Your task to perform on an android device: remove spam from my inbox in the gmail app Image 0: 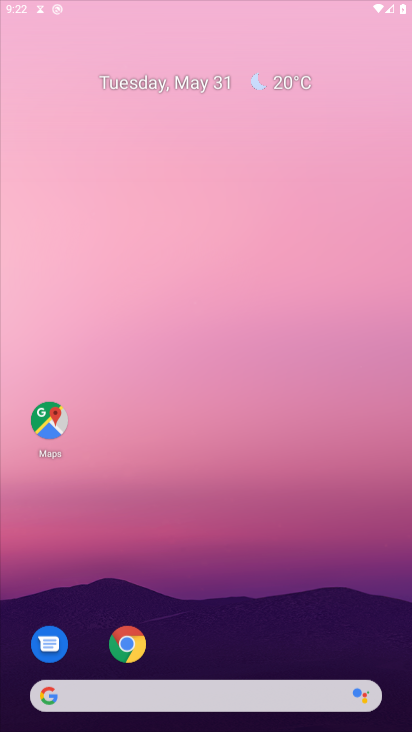
Step 0: press home button
Your task to perform on an android device: remove spam from my inbox in the gmail app Image 1: 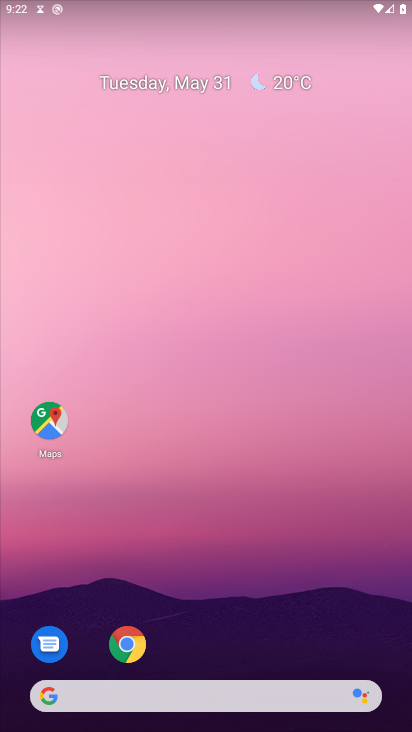
Step 1: drag from (213, 658) to (0, 2)
Your task to perform on an android device: remove spam from my inbox in the gmail app Image 2: 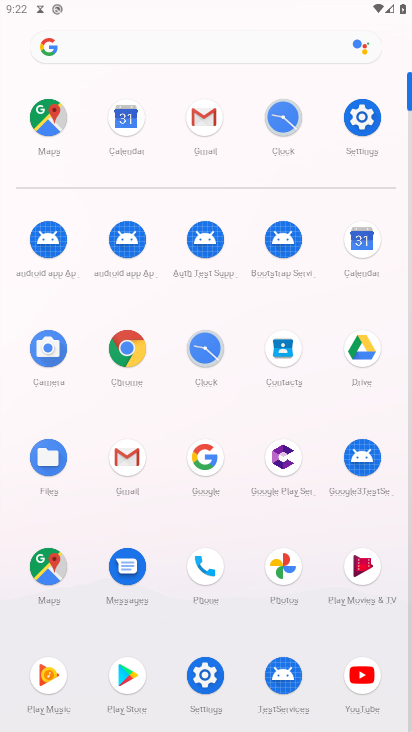
Step 2: click (127, 450)
Your task to perform on an android device: remove spam from my inbox in the gmail app Image 3: 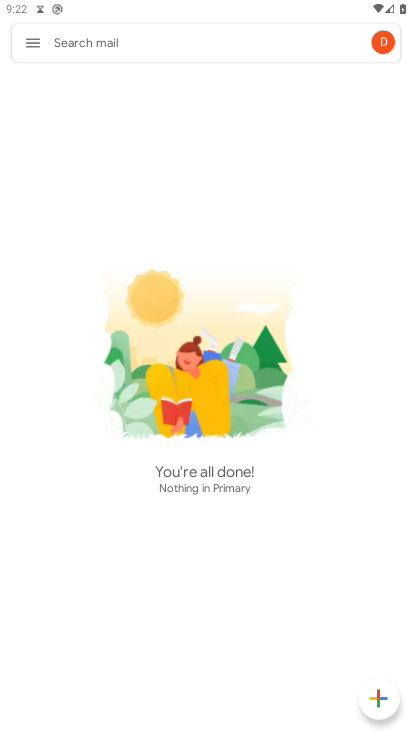
Step 3: click (27, 42)
Your task to perform on an android device: remove spam from my inbox in the gmail app Image 4: 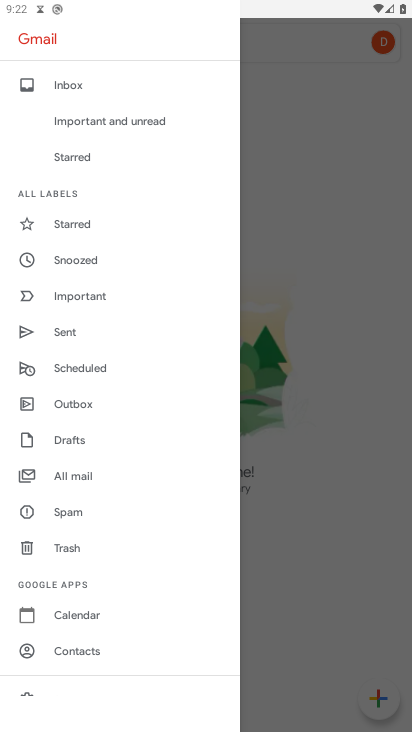
Step 4: click (71, 503)
Your task to perform on an android device: remove spam from my inbox in the gmail app Image 5: 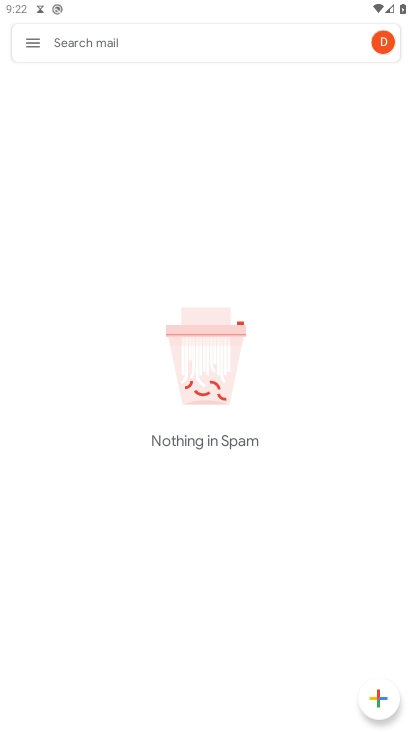
Step 5: task complete